Your task to perform on an android device: change your default location settings in chrome Image 0: 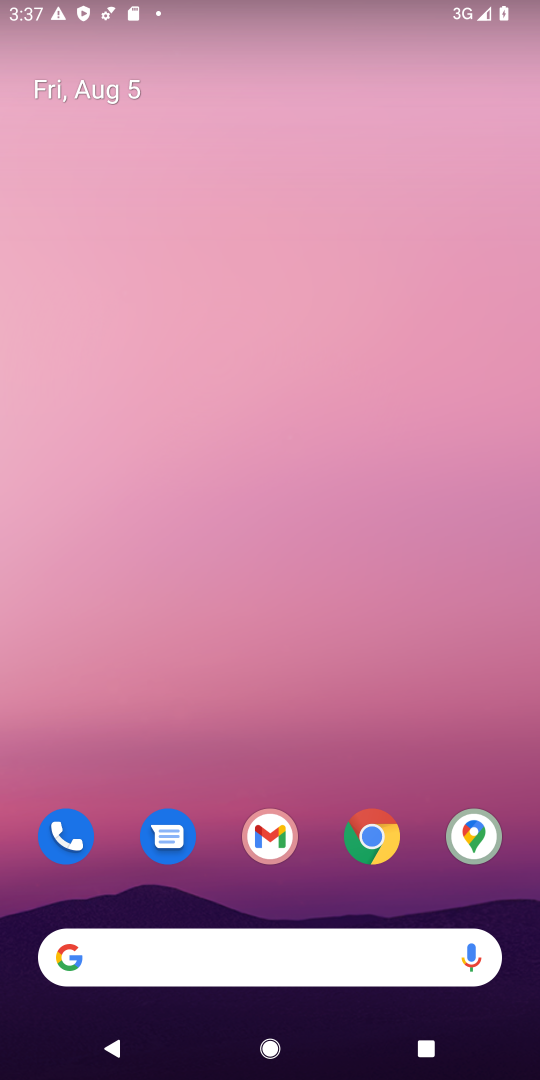
Step 0: drag from (307, 836) to (434, 67)
Your task to perform on an android device: change your default location settings in chrome Image 1: 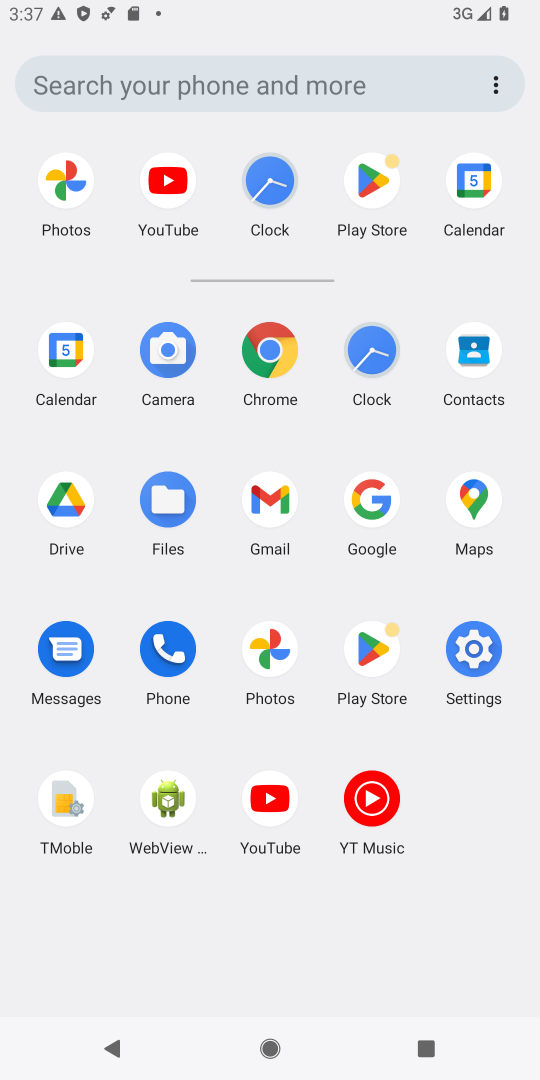
Step 1: click (278, 368)
Your task to perform on an android device: change your default location settings in chrome Image 2: 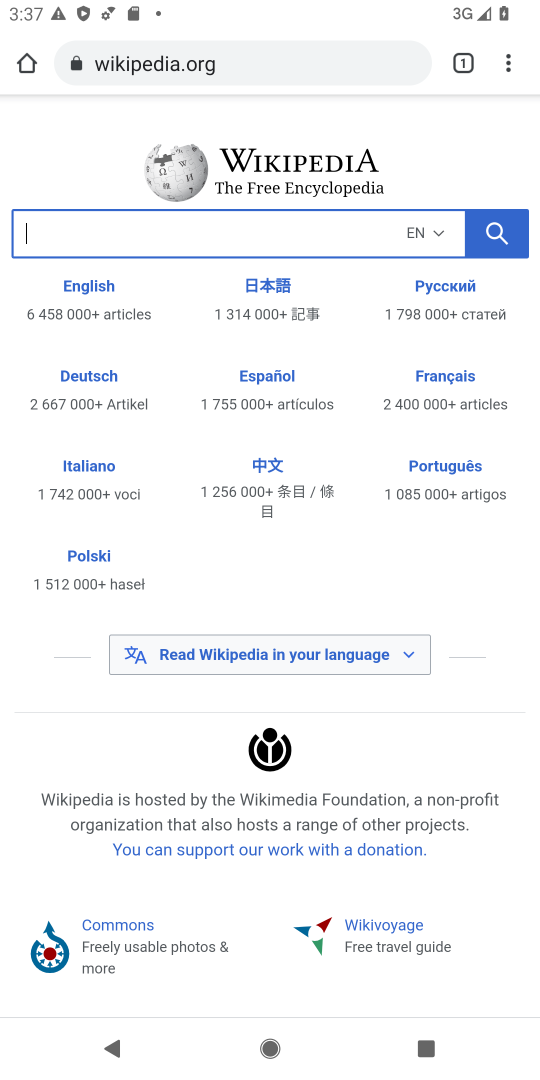
Step 2: drag from (511, 71) to (306, 837)
Your task to perform on an android device: change your default location settings in chrome Image 3: 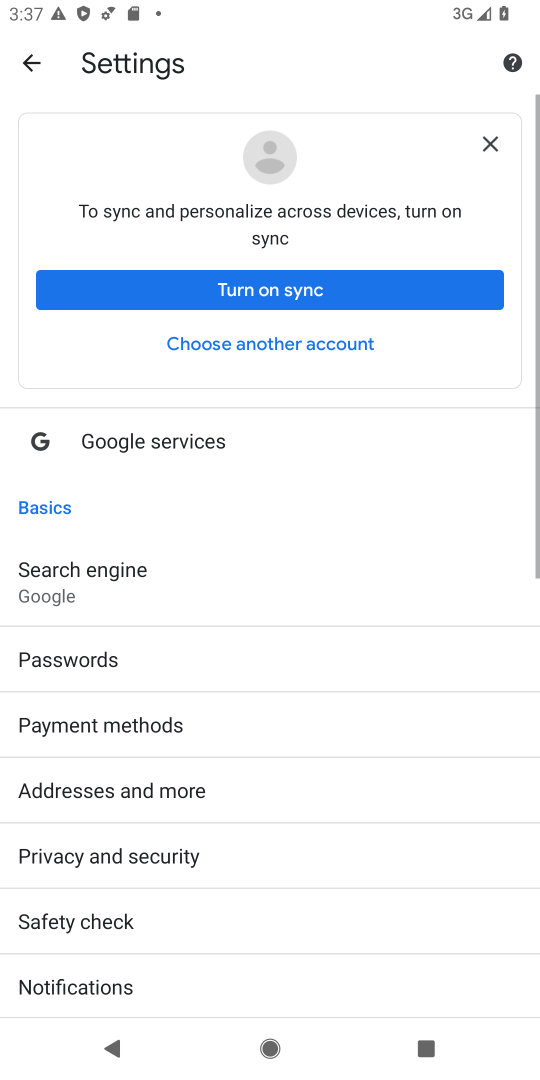
Step 3: drag from (181, 926) to (300, 283)
Your task to perform on an android device: change your default location settings in chrome Image 4: 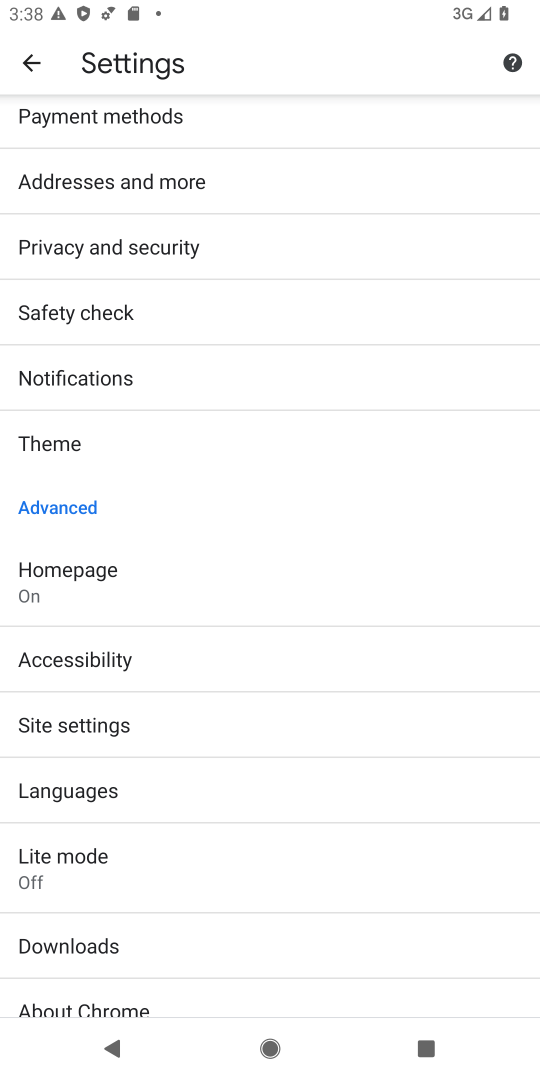
Step 4: click (66, 742)
Your task to perform on an android device: change your default location settings in chrome Image 5: 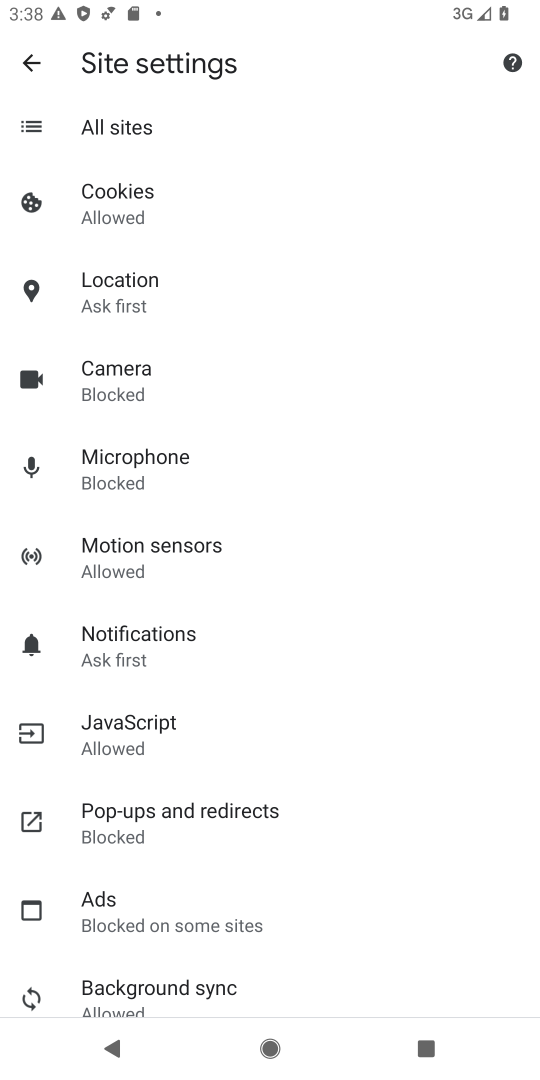
Step 5: click (100, 277)
Your task to perform on an android device: change your default location settings in chrome Image 6: 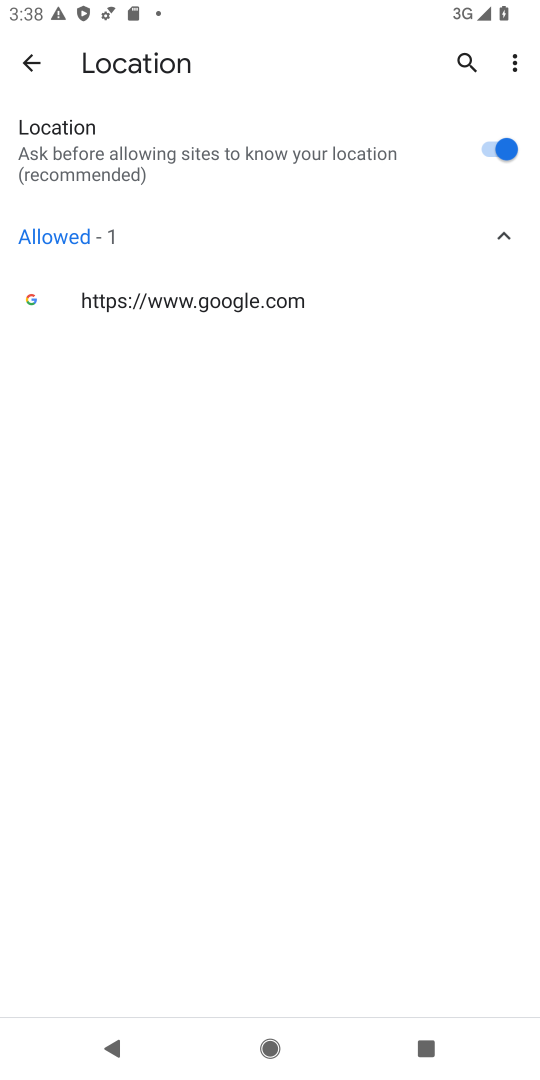
Step 6: click (470, 158)
Your task to perform on an android device: change your default location settings in chrome Image 7: 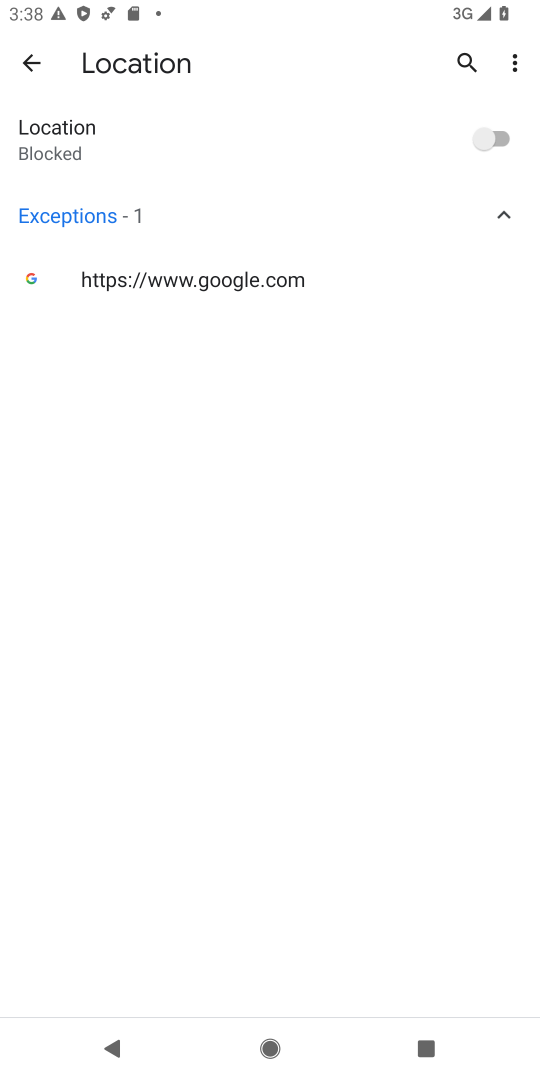
Step 7: task complete